Your task to perform on an android device: Search for sushi restaurants on Maps Image 0: 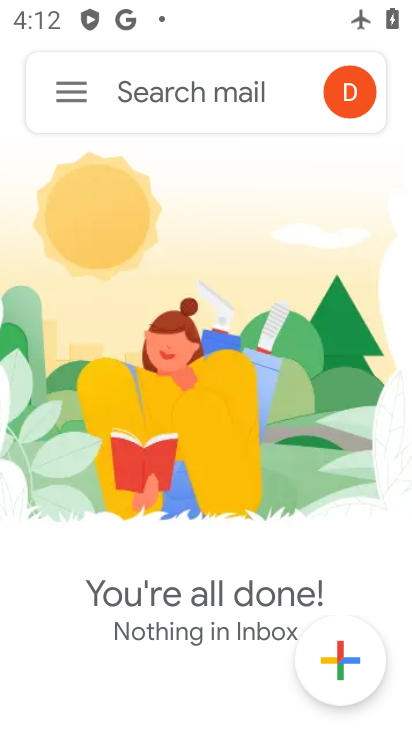
Step 0: press home button
Your task to perform on an android device: Search for sushi restaurants on Maps Image 1: 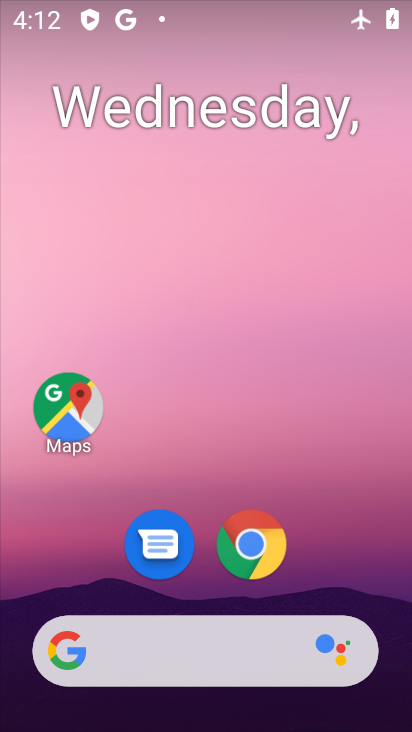
Step 1: drag from (388, 581) to (364, 232)
Your task to perform on an android device: Search for sushi restaurants on Maps Image 2: 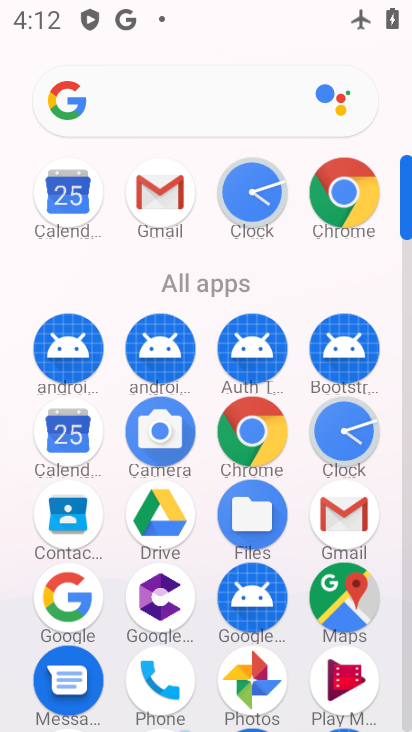
Step 2: click (338, 600)
Your task to perform on an android device: Search for sushi restaurants on Maps Image 3: 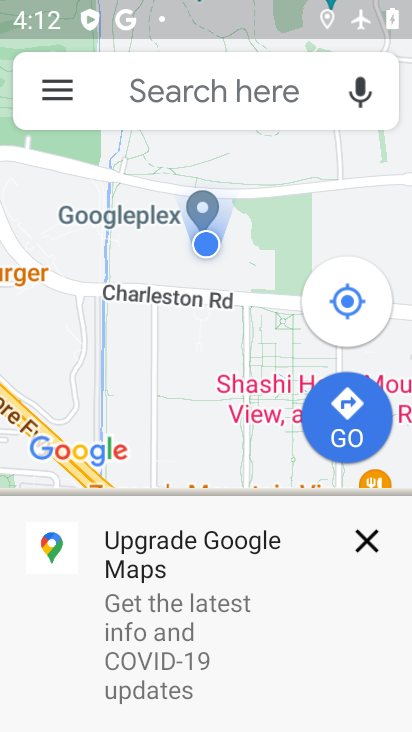
Step 3: click (231, 91)
Your task to perform on an android device: Search for sushi restaurants on Maps Image 4: 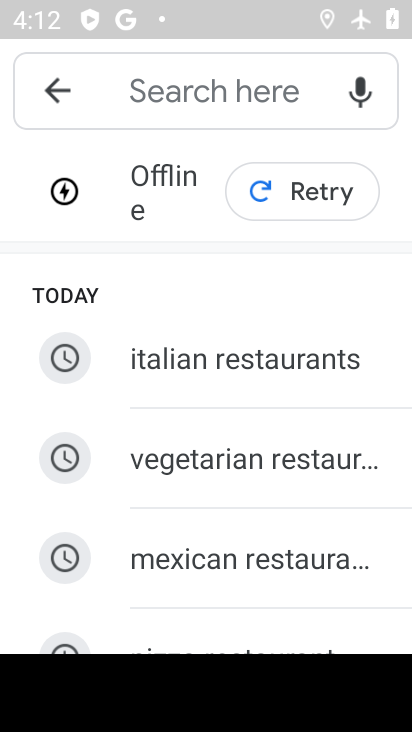
Step 4: type "sushi restaurants"
Your task to perform on an android device: Search for sushi restaurants on Maps Image 5: 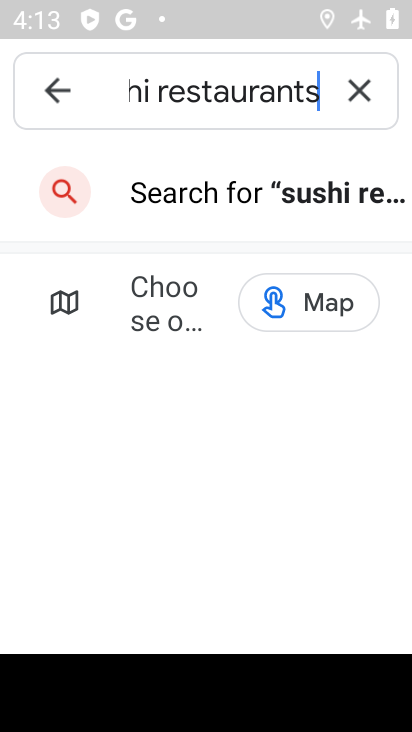
Step 5: task complete